Your task to perform on an android device: see sites visited before in the chrome app Image 0: 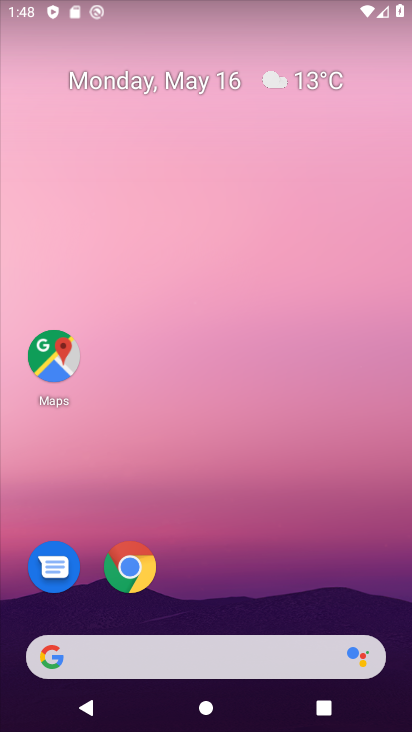
Step 0: click (127, 566)
Your task to perform on an android device: see sites visited before in the chrome app Image 1: 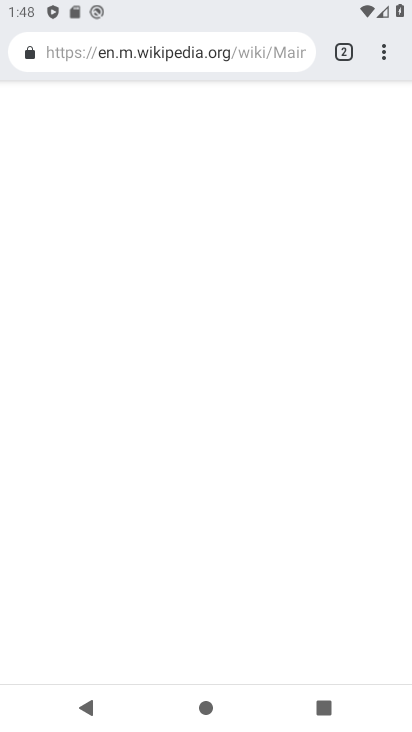
Step 1: click (383, 52)
Your task to perform on an android device: see sites visited before in the chrome app Image 2: 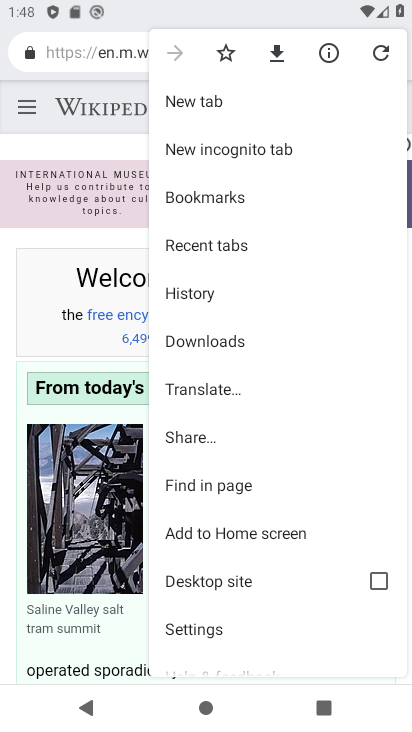
Step 2: click (179, 290)
Your task to perform on an android device: see sites visited before in the chrome app Image 3: 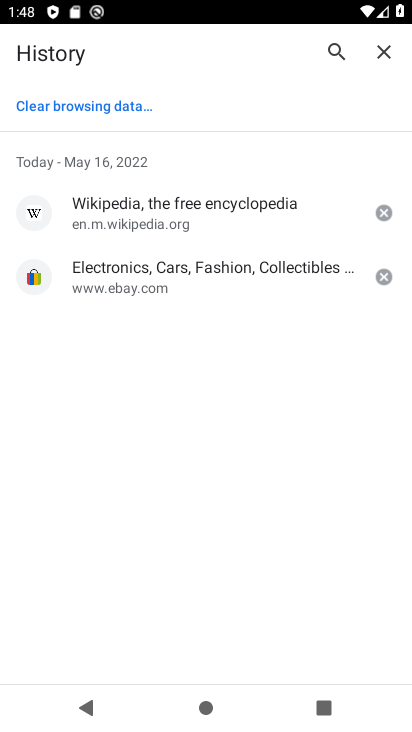
Step 3: task complete